Your task to perform on an android device: Search for the best rated mattress topper on Target. Image 0: 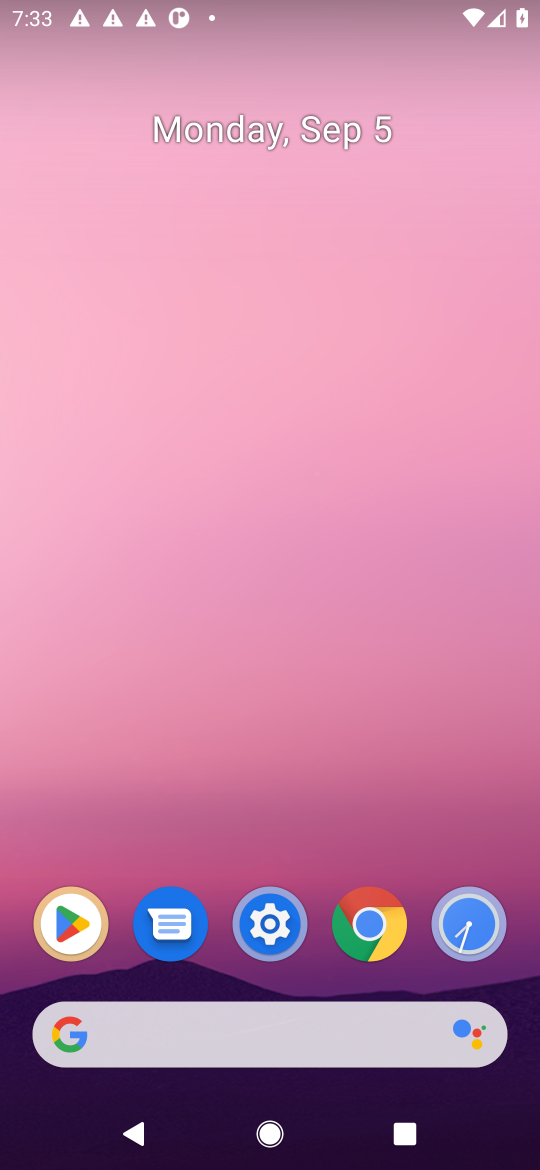
Step 0: click (313, 1029)
Your task to perform on an android device: Search for the best rated mattress topper on Target. Image 1: 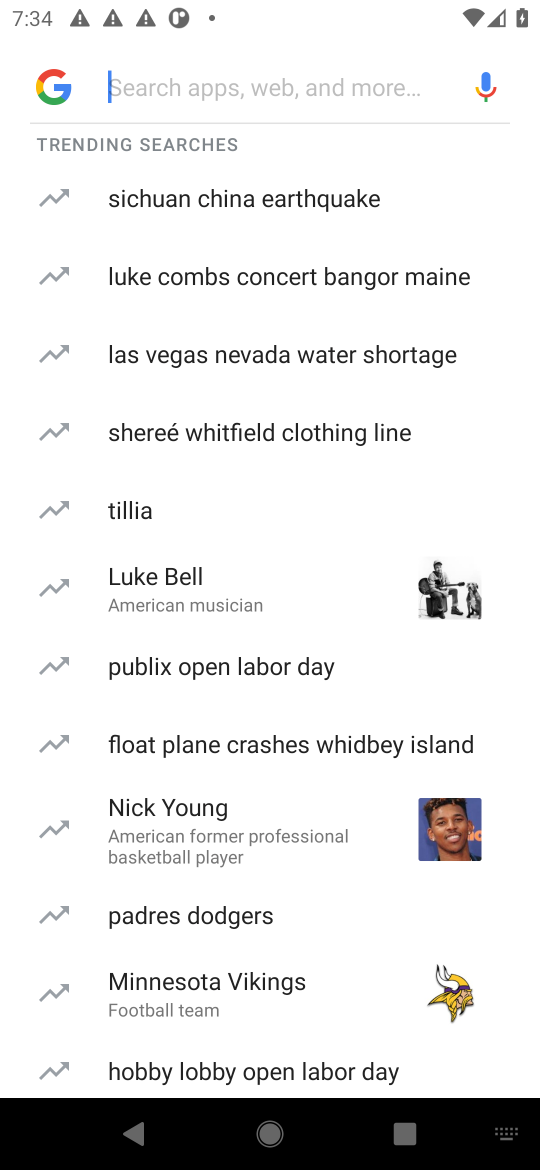
Step 1: press enter
Your task to perform on an android device: Search for the best rated mattress topper on Target. Image 2: 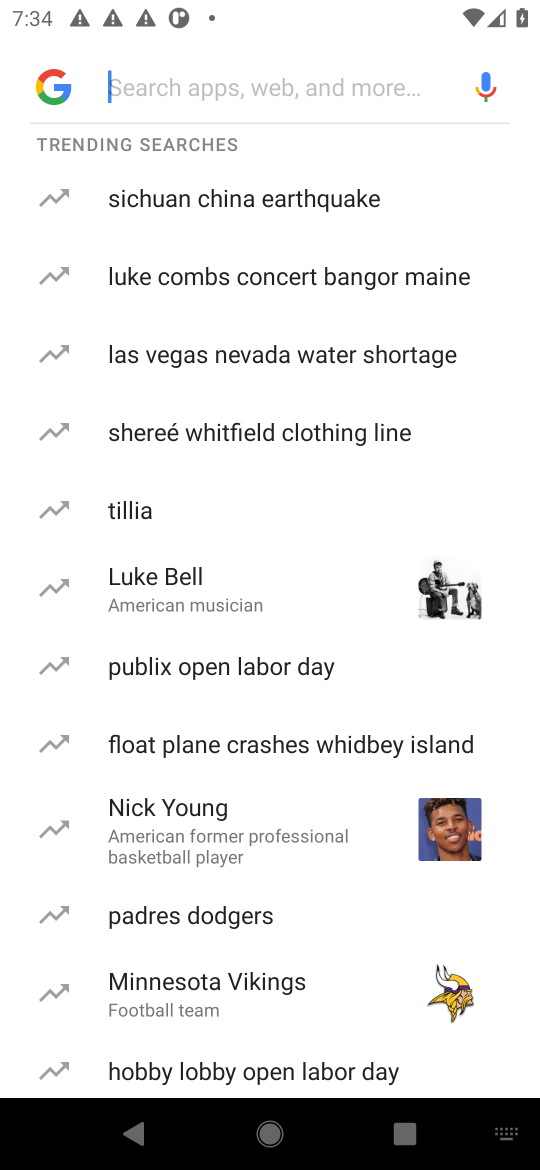
Step 2: type "target "
Your task to perform on an android device: Search for the best rated mattress topper on Target. Image 3: 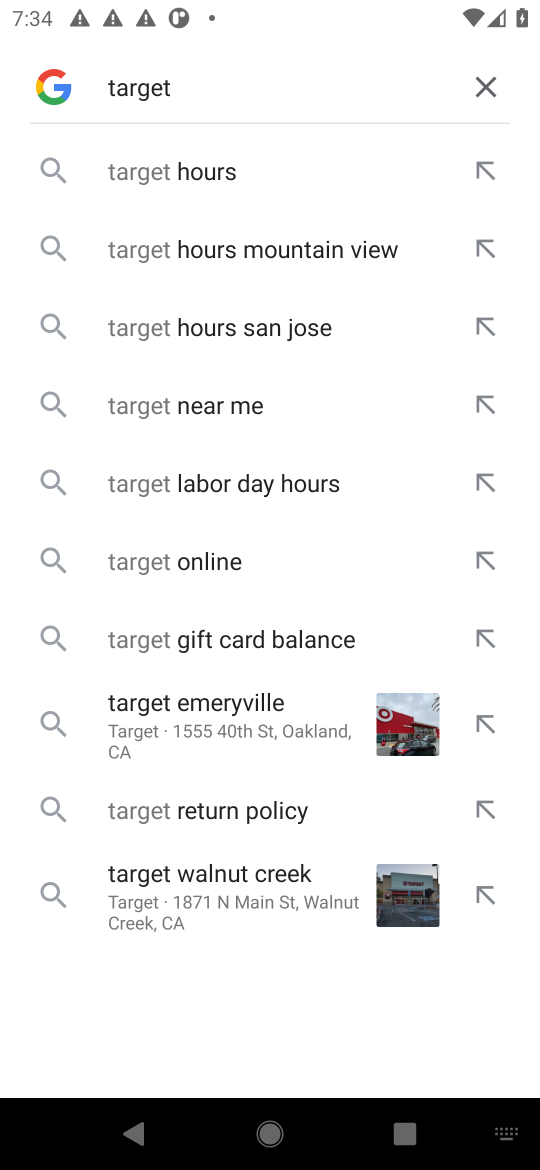
Step 3: press enter
Your task to perform on an android device: Search for the best rated mattress topper on Target. Image 4: 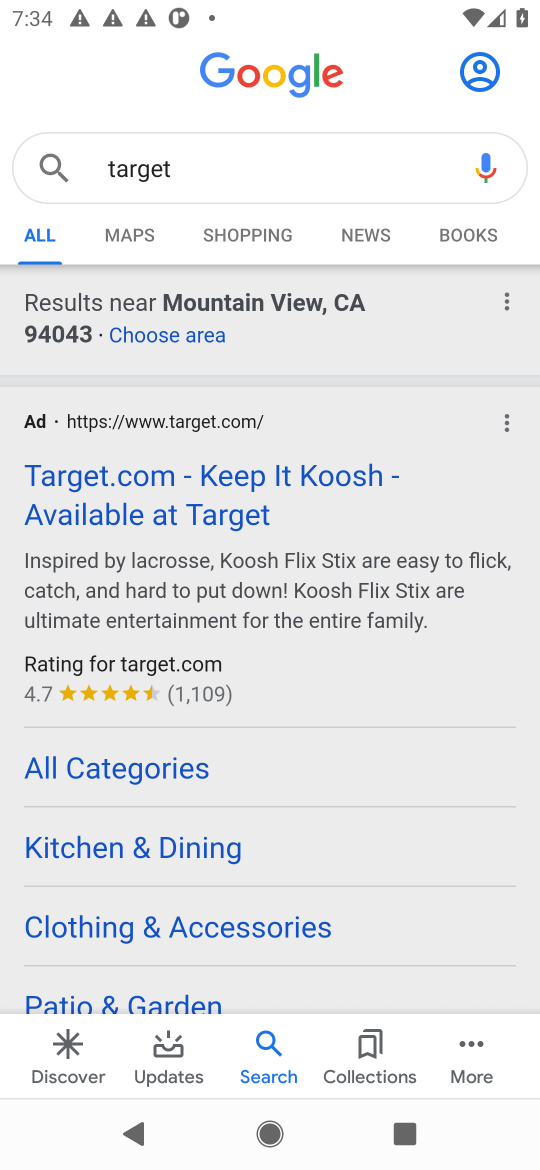
Step 4: click (196, 482)
Your task to perform on an android device: Search for the best rated mattress topper on Target. Image 5: 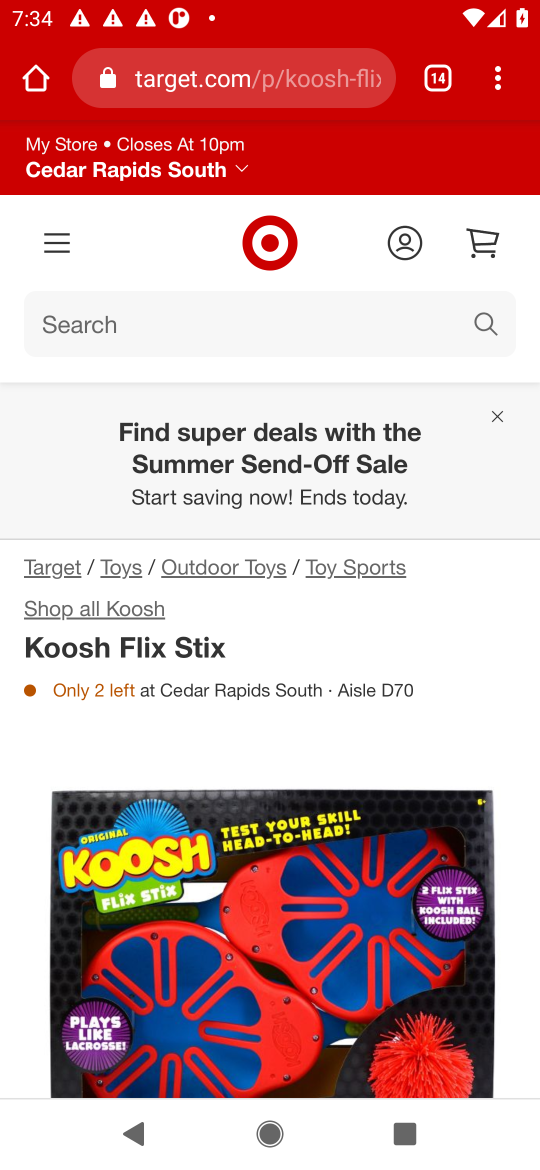
Step 5: click (74, 323)
Your task to perform on an android device: Search for the best rated mattress topper on Target. Image 6: 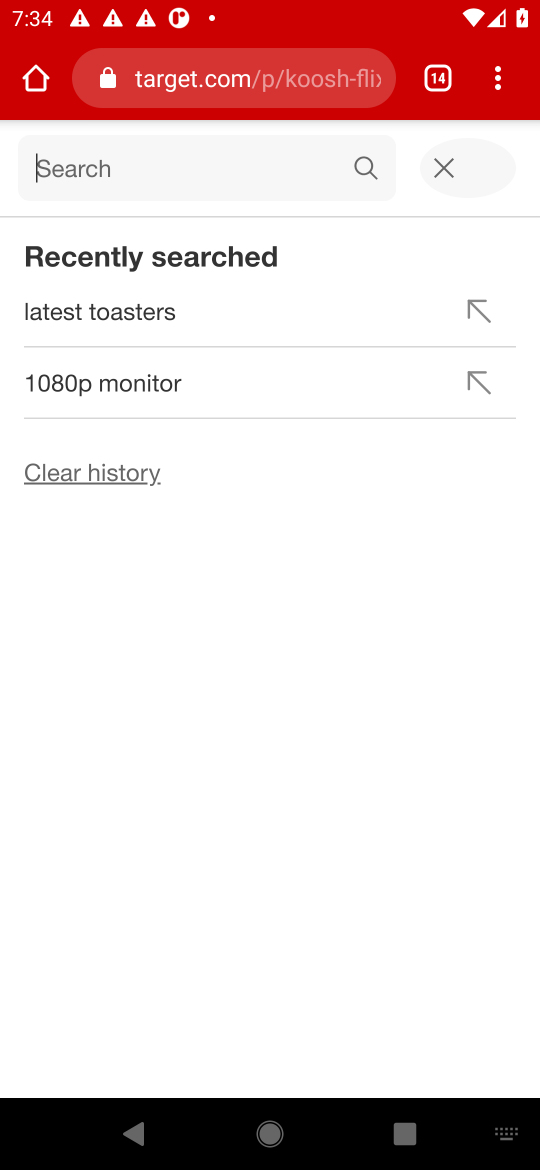
Step 6: type "best rated mattress topper"
Your task to perform on an android device: Search for the best rated mattress topper on Target. Image 7: 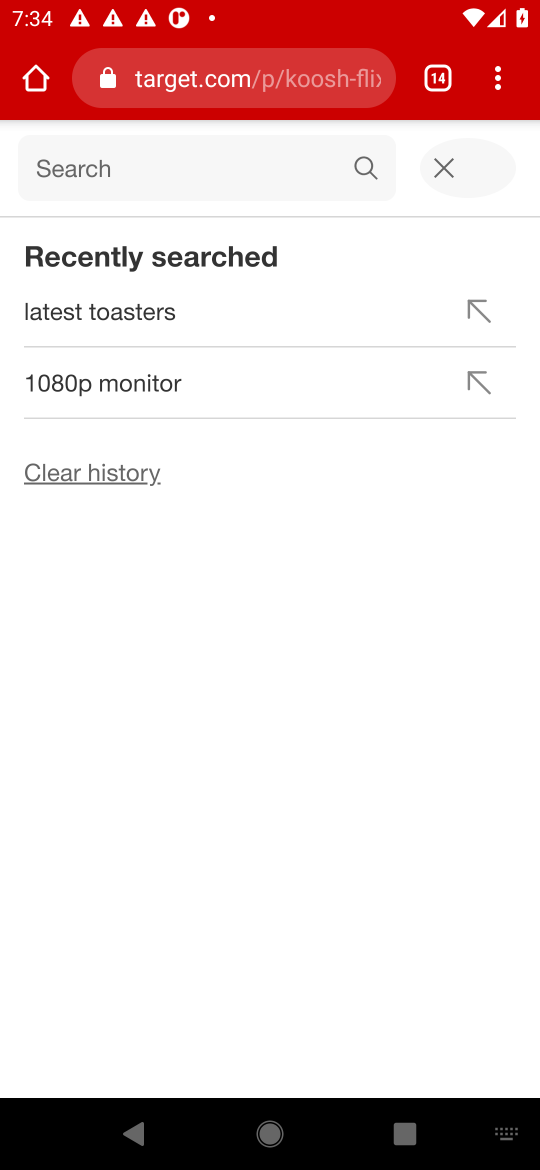
Step 7: press enter
Your task to perform on an android device: Search for the best rated mattress topper on Target. Image 8: 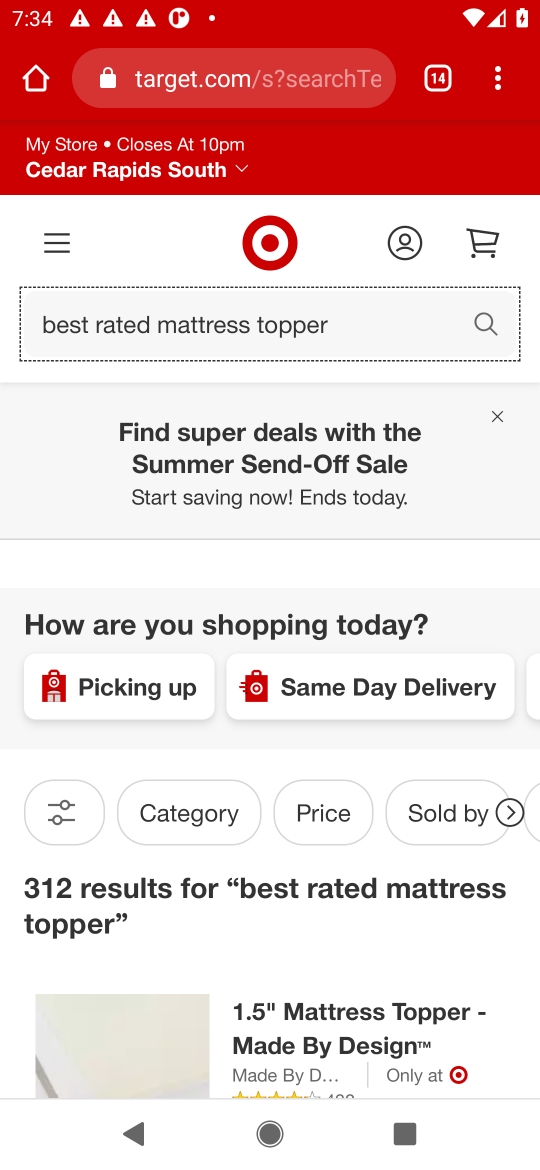
Step 8: task complete